Your task to perform on an android device: Open Chrome and go to the settings page Image 0: 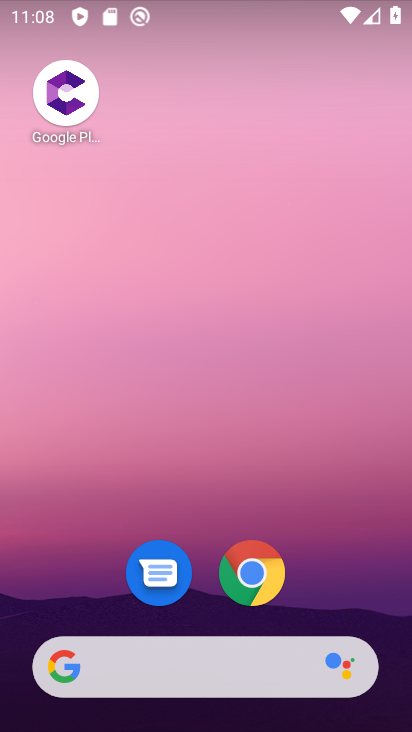
Step 0: click (262, 577)
Your task to perform on an android device: Open Chrome and go to the settings page Image 1: 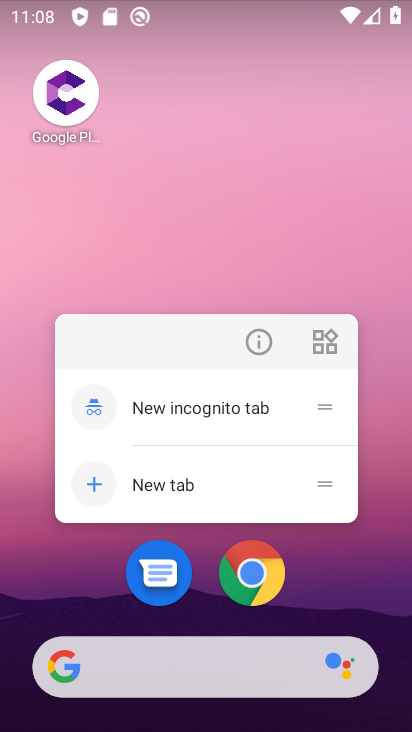
Step 1: click (257, 581)
Your task to perform on an android device: Open Chrome and go to the settings page Image 2: 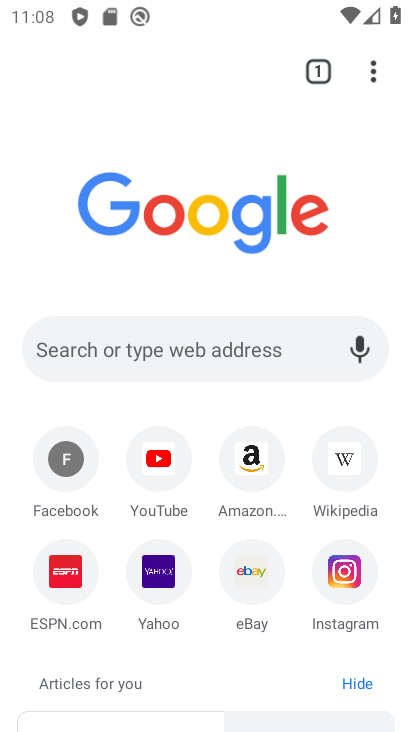
Step 2: task complete